Your task to perform on an android device: turn on the 24-hour format for clock Image 0: 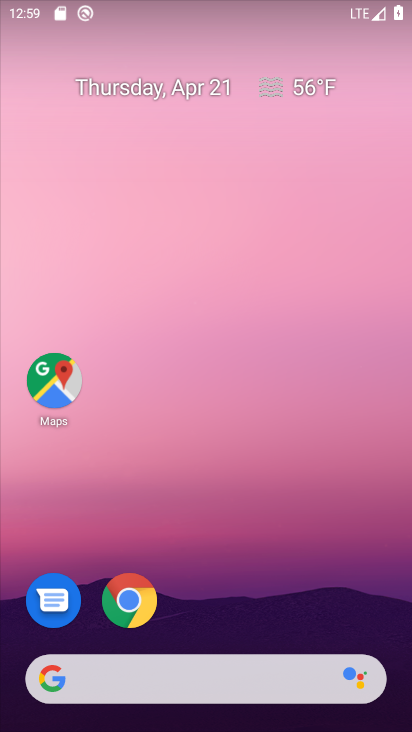
Step 0: drag from (293, 579) to (312, 146)
Your task to perform on an android device: turn on the 24-hour format for clock Image 1: 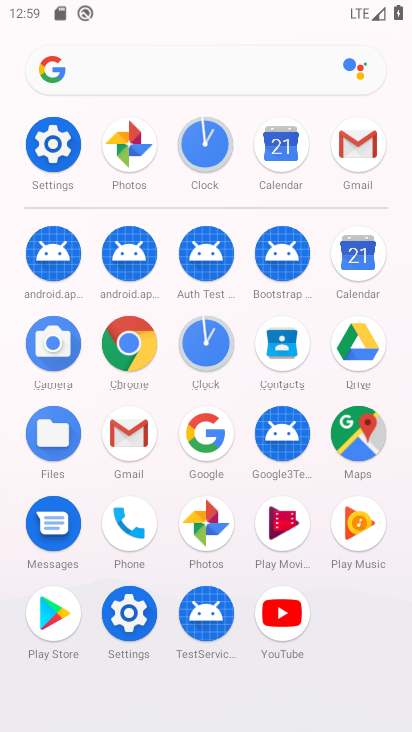
Step 1: click (196, 355)
Your task to perform on an android device: turn on the 24-hour format for clock Image 2: 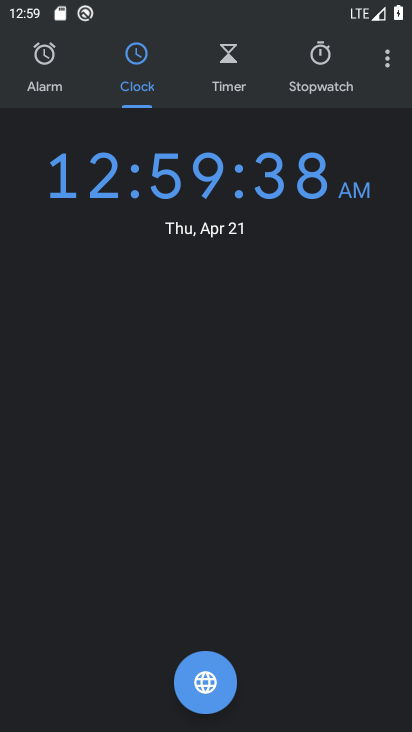
Step 2: click (394, 62)
Your task to perform on an android device: turn on the 24-hour format for clock Image 3: 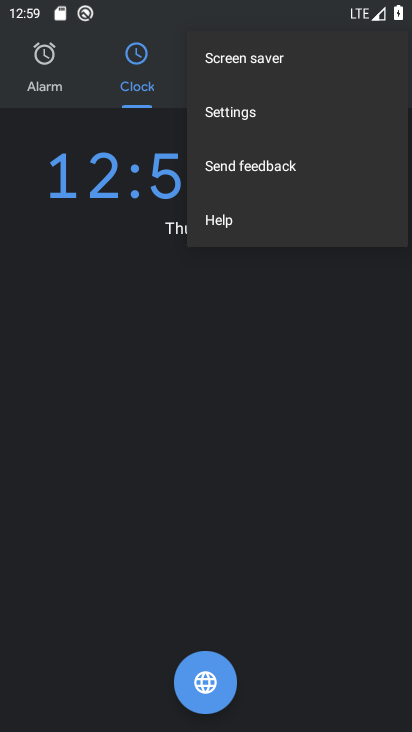
Step 3: click (340, 126)
Your task to perform on an android device: turn on the 24-hour format for clock Image 4: 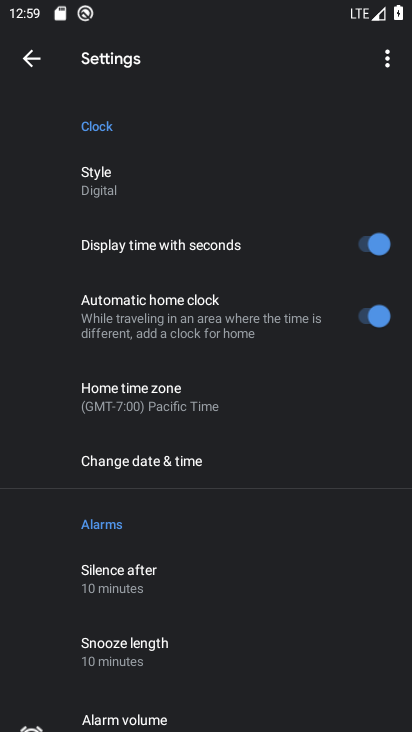
Step 4: drag from (273, 590) to (296, 315)
Your task to perform on an android device: turn on the 24-hour format for clock Image 5: 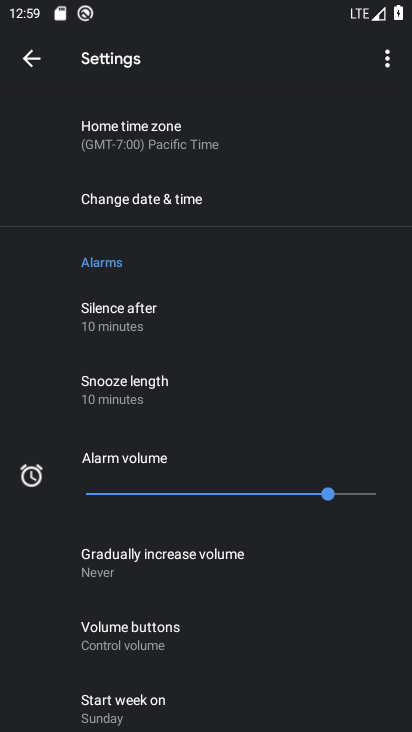
Step 5: click (297, 203)
Your task to perform on an android device: turn on the 24-hour format for clock Image 6: 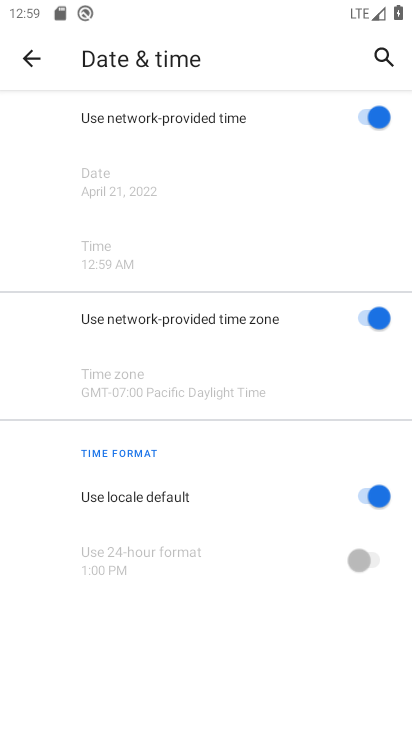
Step 6: drag from (237, 552) to (283, 205)
Your task to perform on an android device: turn on the 24-hour format for clock Image 7: 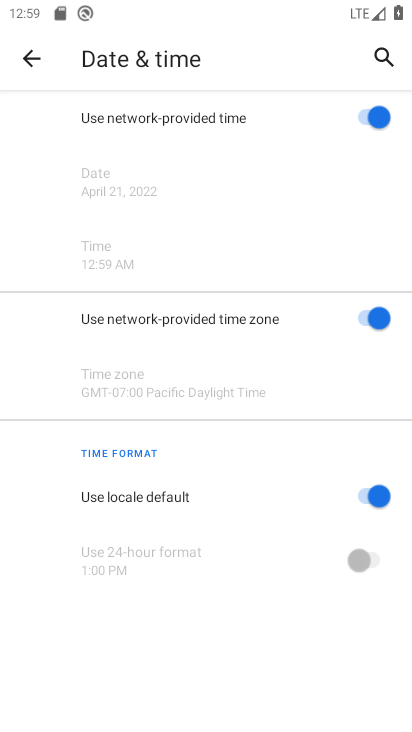
Step 7: click (359, 487)
Your task to perform on an android device: turn on the 24-hour format for clock Image 8: 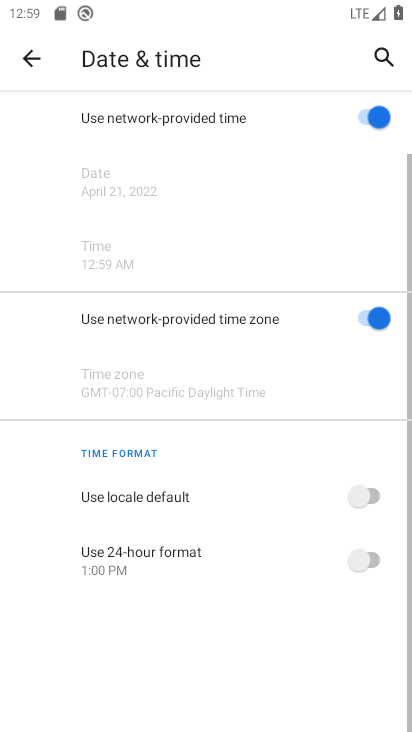
Step 8: click (366, 551)
Your task to perform on an android device: turn on the 24-hour format for clock Image 9: 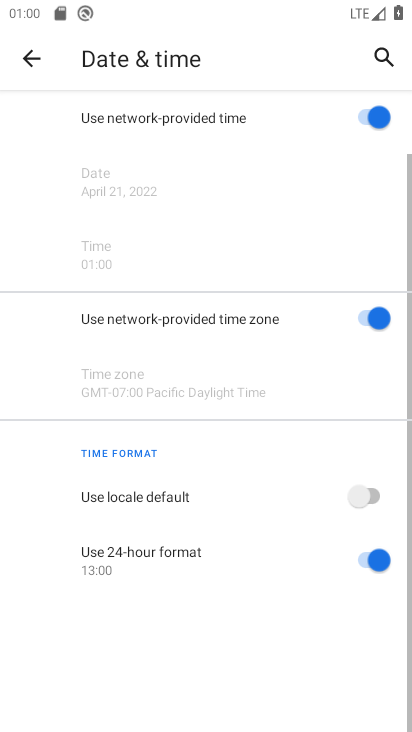
Step 9: task complete